Your task to perform on an android device: Go to notification settings Image 0: 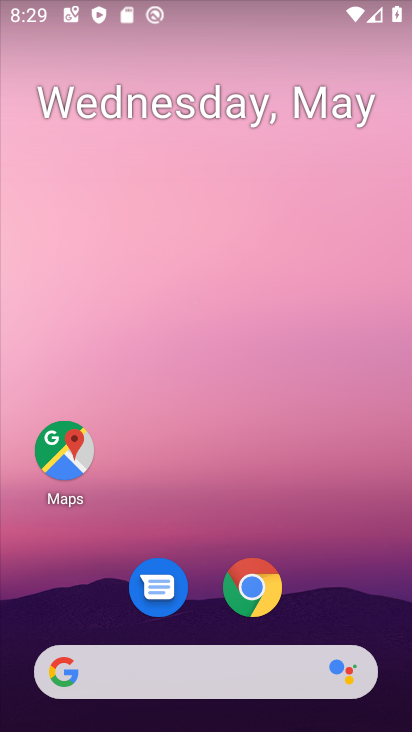
Step 0: drag from (385, 628) to (346, 147)
Your task to perform on an android device: Go to notification settings Image 1: 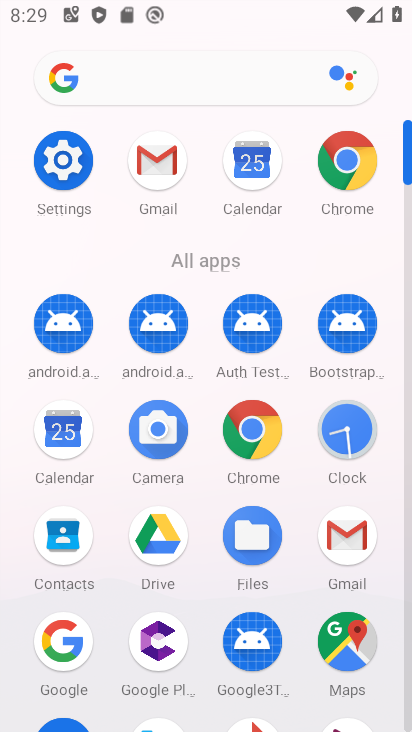
Step 1: click (406, 701)
Your task to perform on an android device: Go to notification settings Image 2: 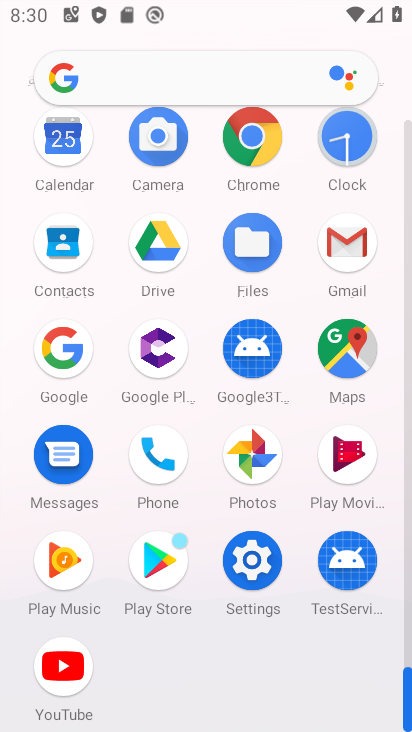
Step 2: click (406, 701)
Your task to perform on an android device: Go to notification settings Image 3: 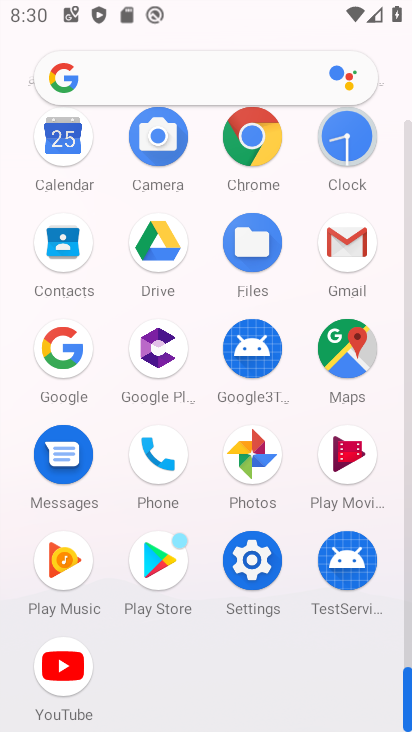
Step 3: click (250, 559)
Your task to perform on an android device: Go to notification settings Image 4: 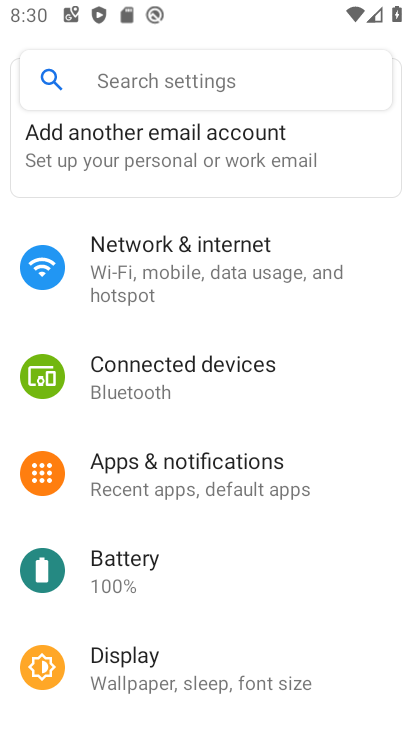
Step 4: click (148, 459)
Your task to perform on an android device: Go to notification settings Image 5: 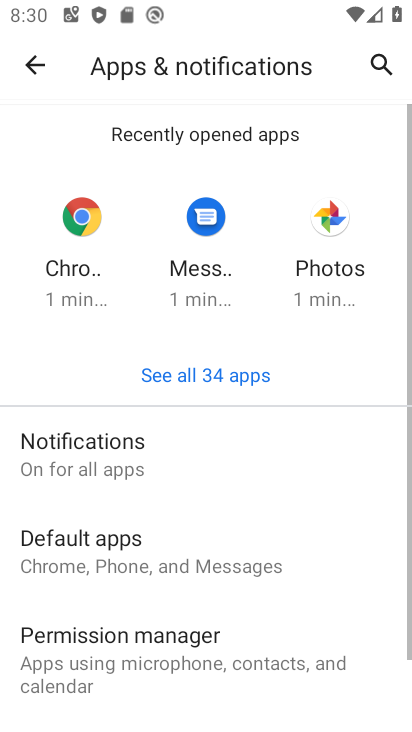
Step 5: click (83, 454)
Your task to perform on an android device: Go to notification settings Image 6: 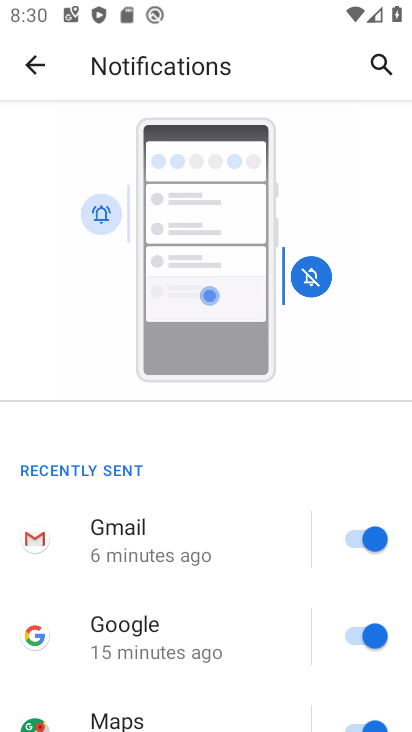
Step 6: drag from (274, 679) to (253, 88)
Your task to perform on an android device: Go to notification settings Image 7: 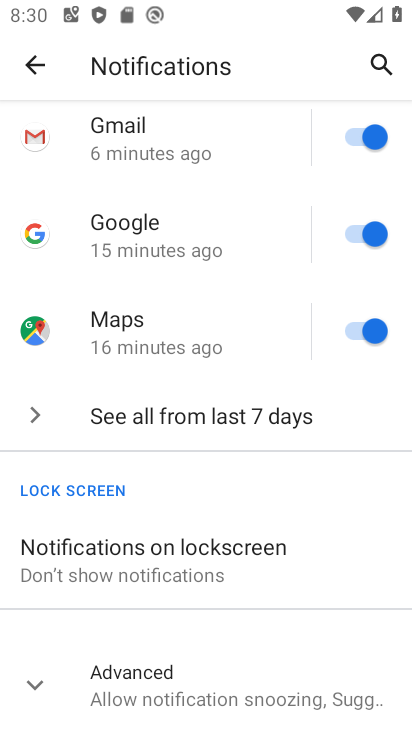
Step 7: click (32, 686)
Your task to perform on an android device: Go to notification settings Image 8: 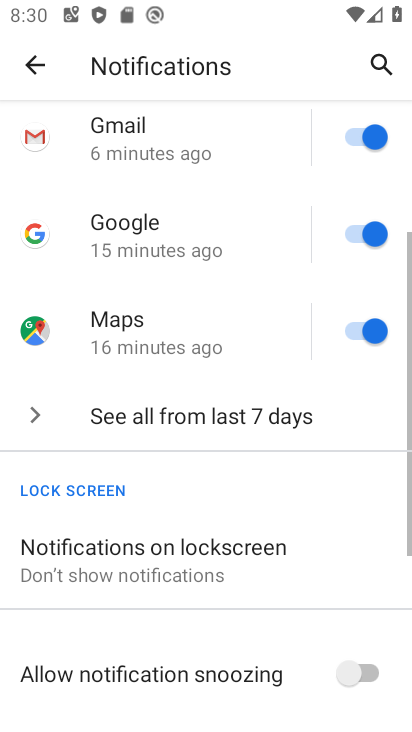
Step 8: drag from (299, 642) to (239, 213)
Your task to perform on an android device: Go to notification settings Image 9: 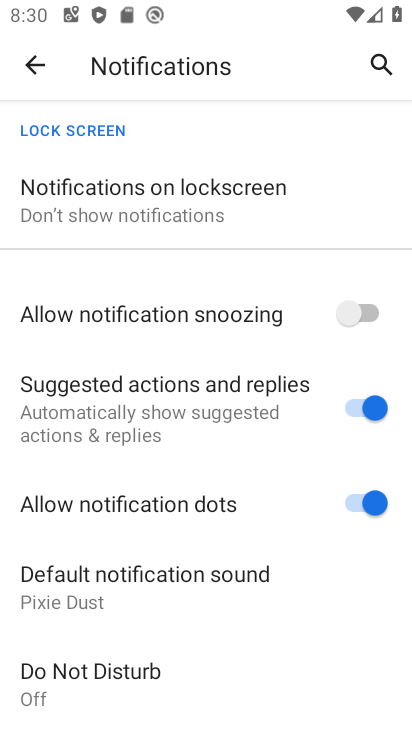
Step 9: click (356, 409)
Your task to perform on an android device: Go to notification settings Image 10: 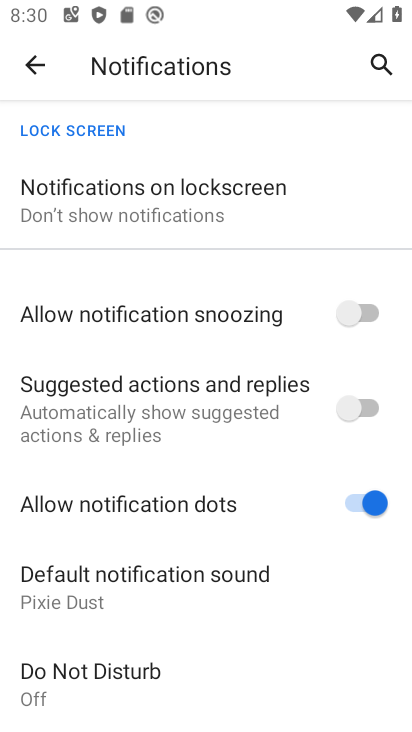
Step 10: click (350, 493)
Your task to perform on an android device: Go to notification settings Image 11: 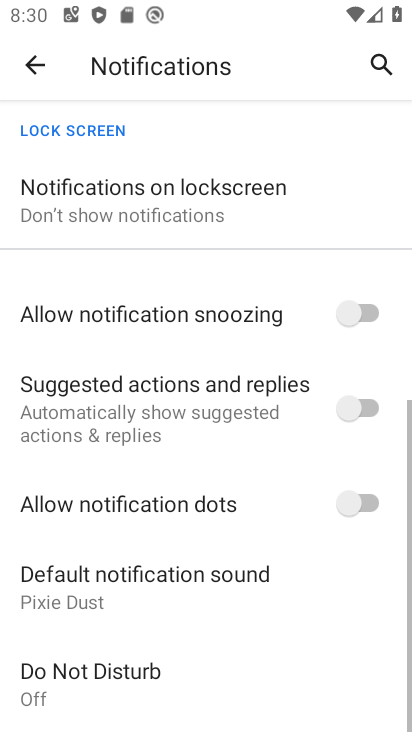
Step 11: click (363, 306)
Your task to perform on an android device: Go to notification settings Image 12: 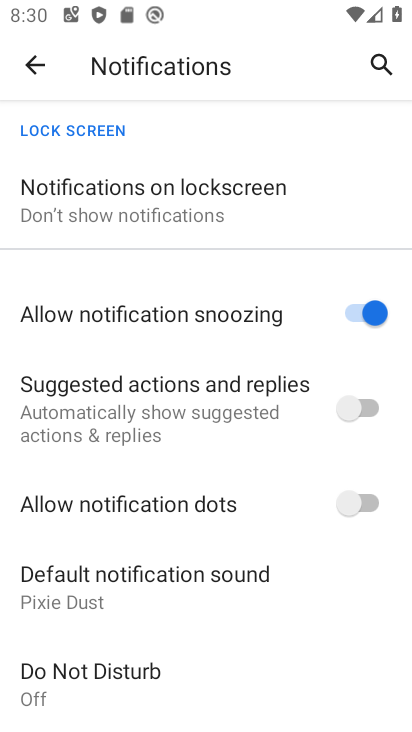
Step 12: task complete